Your task to perform on an android device: Open the calendar app, open the side menu, and click the "Day" option Image 0: 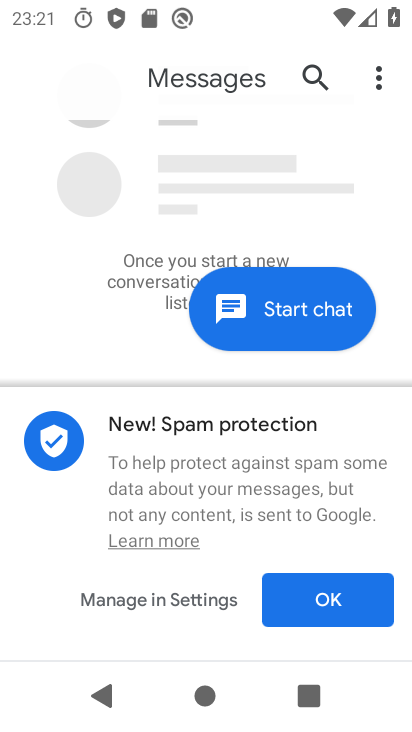
Step 0: press home button
Your task to perform on an android device: Open the calendar app, open the side menu, and click the "Day" option Image 1: 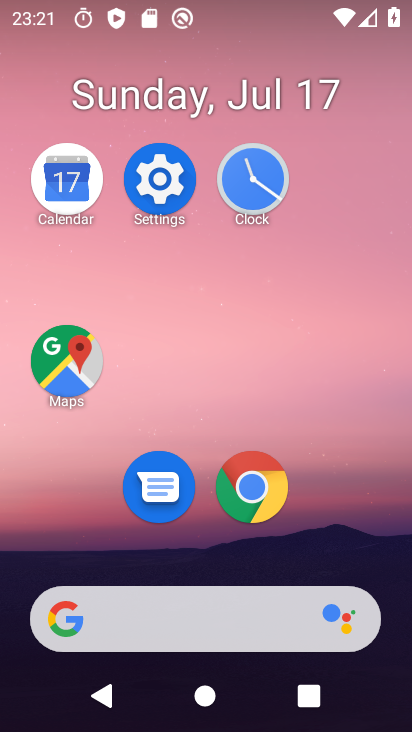
Step 1: drag from (351, 540) to (325, 113)
Your task to perform on an android device: Open the calendar app, open the side menu, and click the "Day" option Image 2: 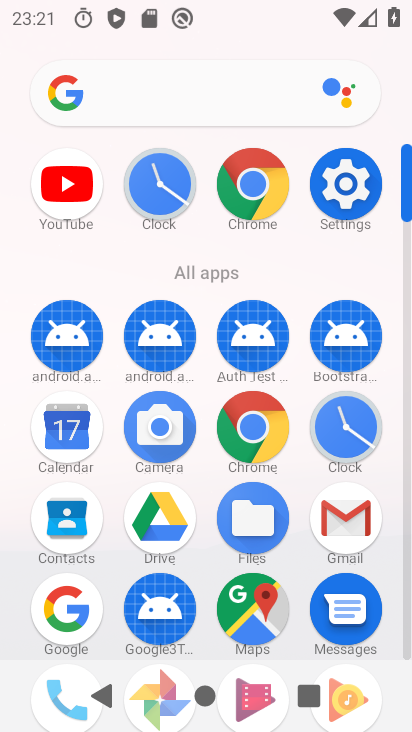
Step 2: click (66, 437)
Your task to perform on an android device: Open the calendar app, open the side menu, and click the "Day" option Image 3: 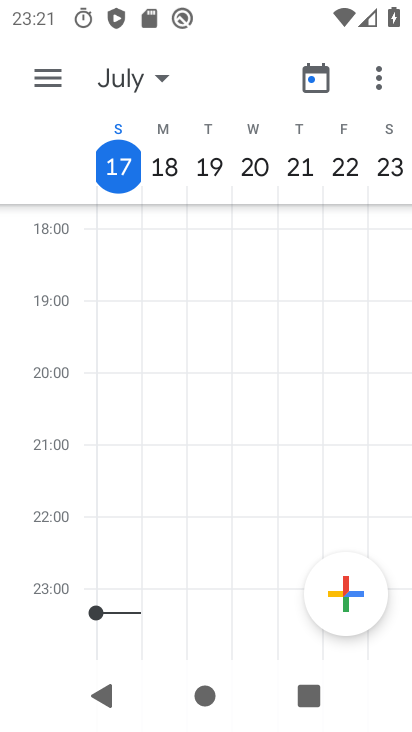
Step 3: click (58, 85)
Your task to perform on an android device: Open the calendar app, open the side menu, and click the "Day" option Image 4: 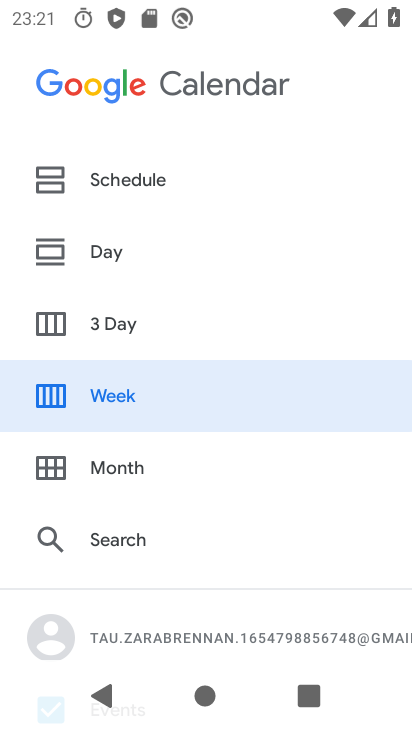
Step 4: click (116, 261)
Your task to perform on an android device: Open the calendar app, open the side menu, and click the "Day" option Image 5: 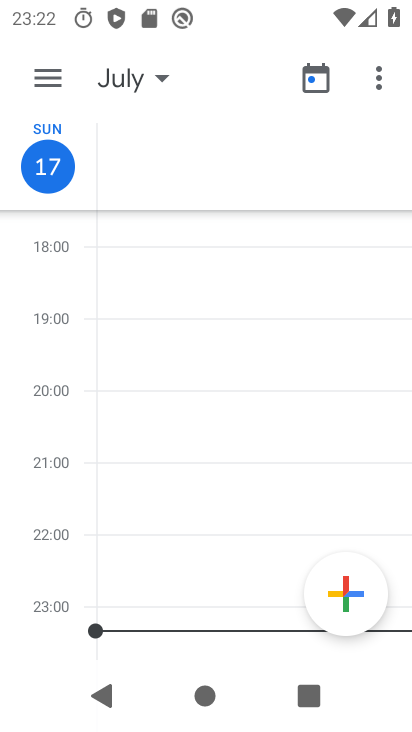
Step 5: task complete